Your task to perform on an android device: change notification settings in the gmail app Image 0: 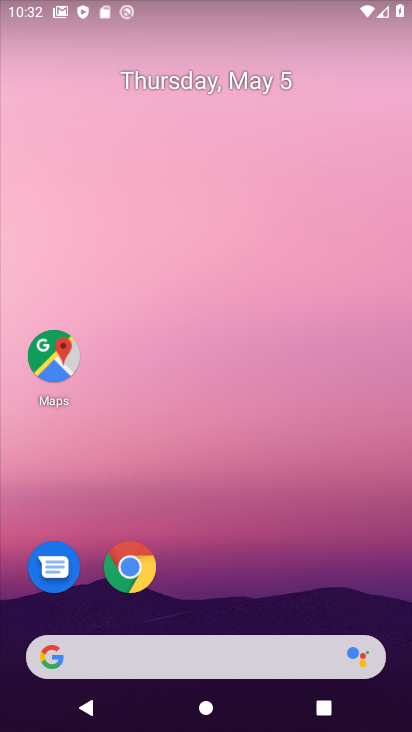
Step 0: drag from (233, 603) to (327, 14)
Your task to perform on an android device: change notification settings in the gmail app Image 1: 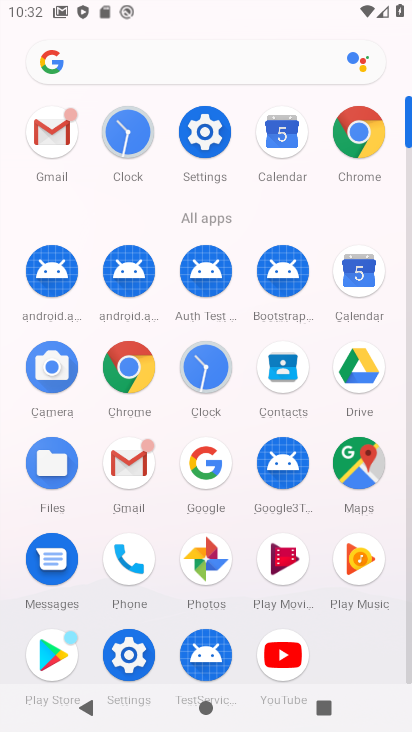
Step 1: click (53, 133)
Your task to perform on an android device: change notification settings in the gmail app Image 2: 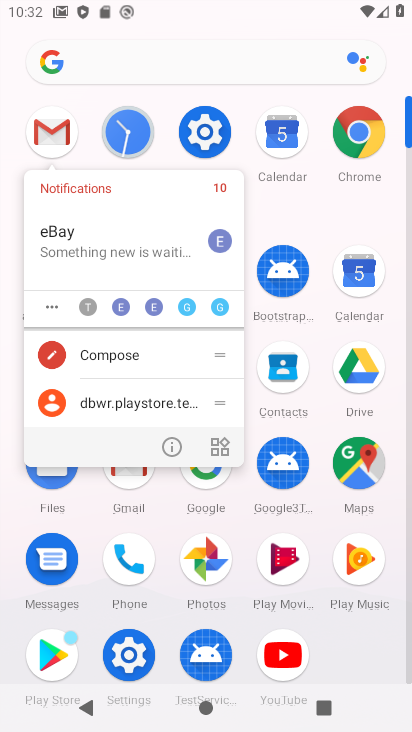
Step 2: click (167, 448)
Your task to perform on an android device: change notification settings in the gmail app Image 3: 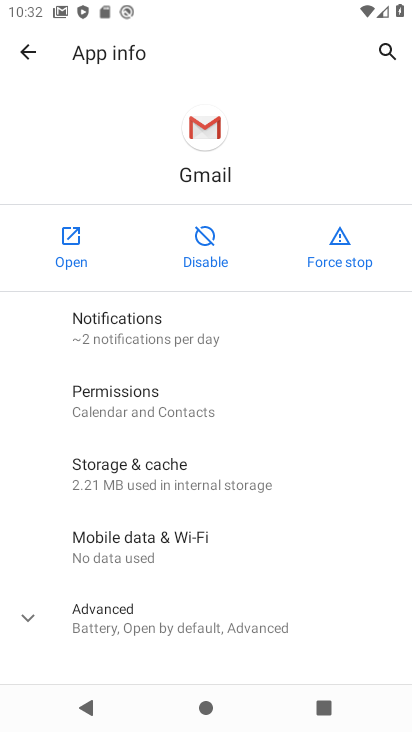
Step 3: click (113, 329)
Your task to perform on an android device: change notification settings in the gmail app Image 4: 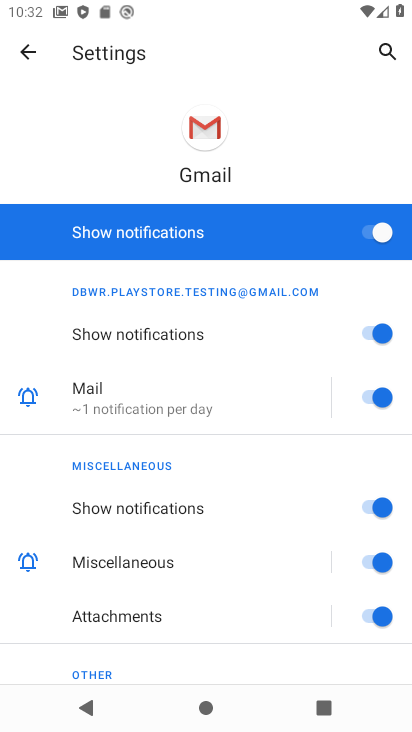
Step 4: click (388, 502)
Your task to perform on an android device: change notification settings in the gmail app Image 5: 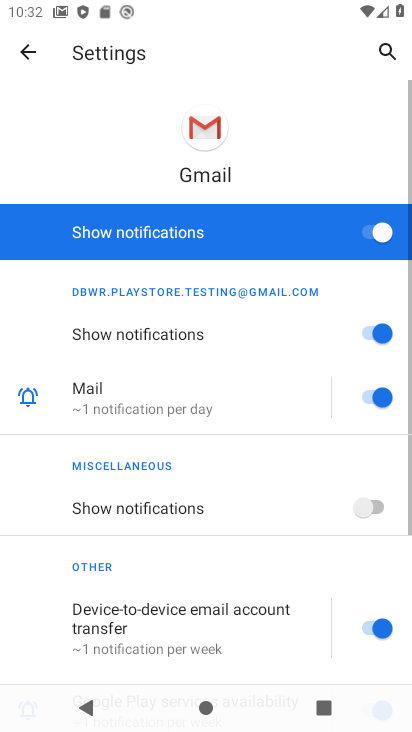
Step 5: task complete